Your task to perform on an android device: What's the weather going to be tomorrow? Image 0: 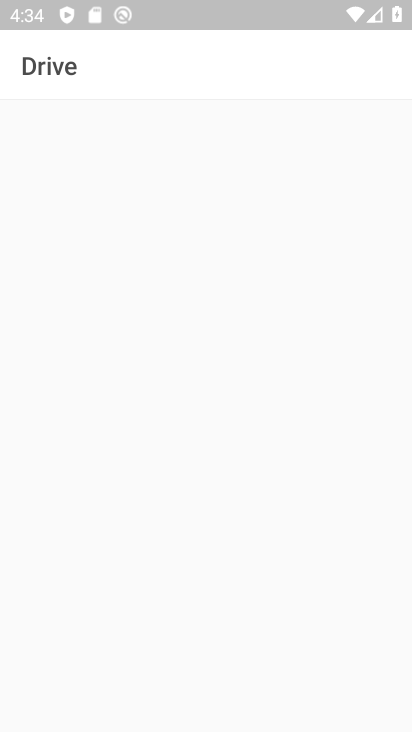
Step 0: press home button
Your task to perform on an android device: What's the weather going to be tomorrow? Image 1: 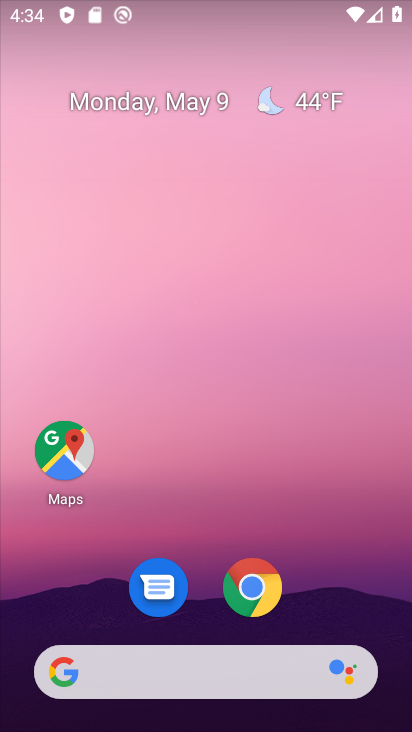
Step 1: drag from (205, 617) to (196, 71)
Your task to perform on an android device: What's the weather going to be tomorrow? Image 2: 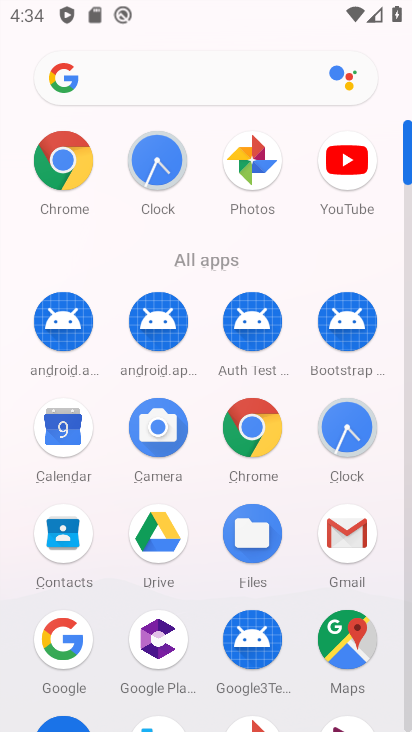
Step 2: click (77, 631)
Your task to perform on an android device: What's the weather going to be tomorrow? Image 3: 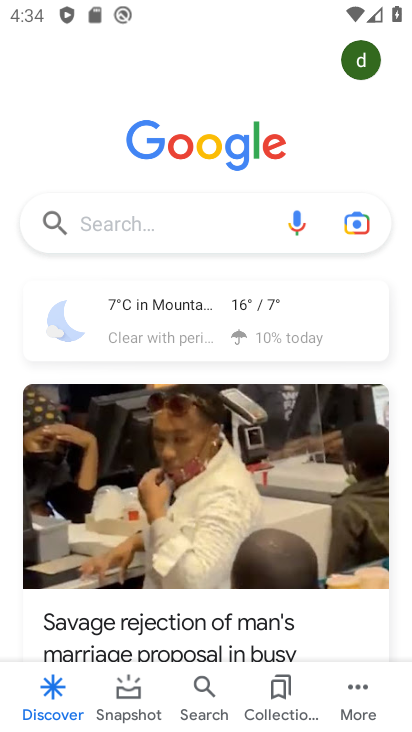
Step 3: click (179, 226)
Your task to perform on an android device: What's the weather going to be tomorrow? Image 4: 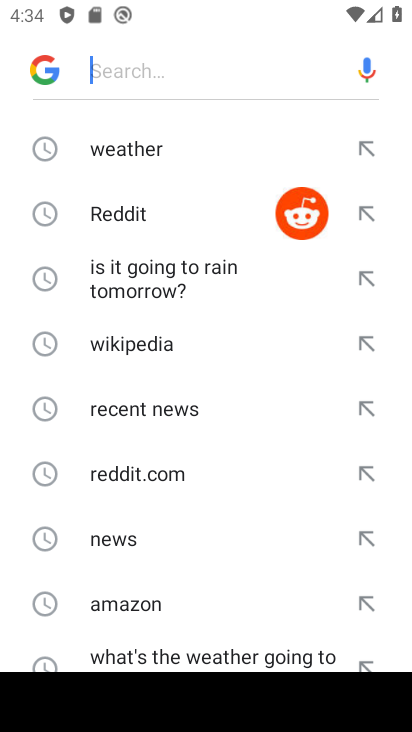
Step 4: drag from (253, 609) to (281, 394)
Your task to perform on an android device: What's the weather going to be tomorrow? Image 5: 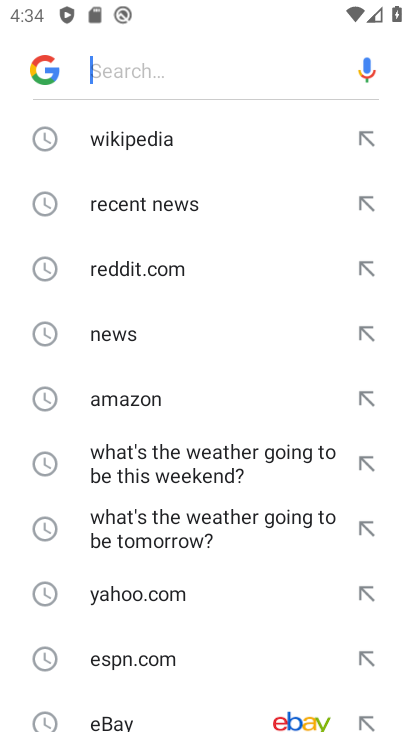
Step 5: click (176, 539)
Your task to perform on an android device: What's the weather going to be tomorrow? Image 6: 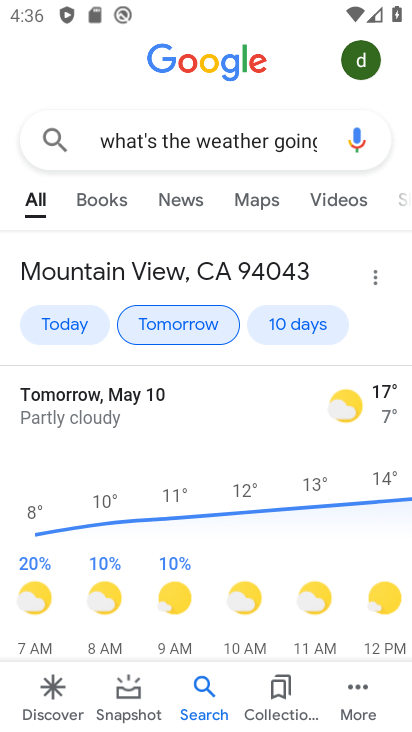
Step 6: task complete